Your task to perform on an android device: Open maps Image 0: 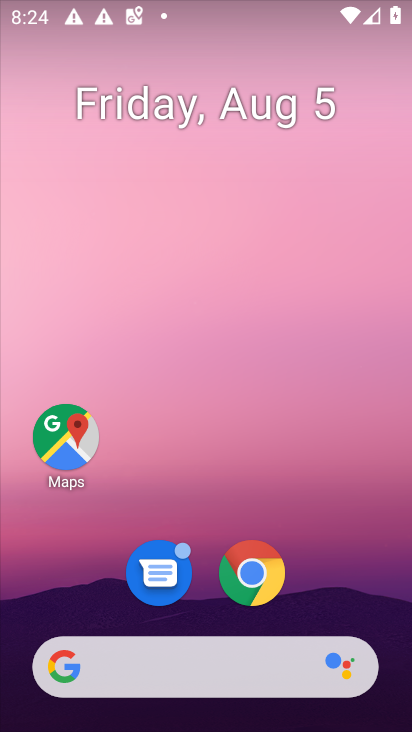
Step 0: click (67, 442)
Your task to perform on an android device: Open maps Image 1: 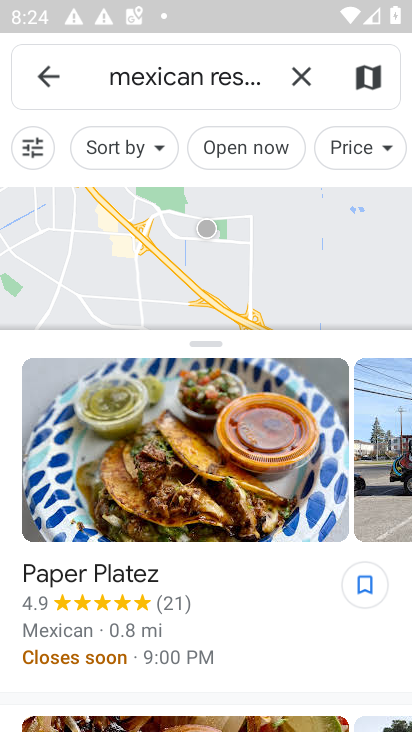
Step 1: task complete